Your task to perform on an android device: turn smart compose on in the gmail app Image 0: 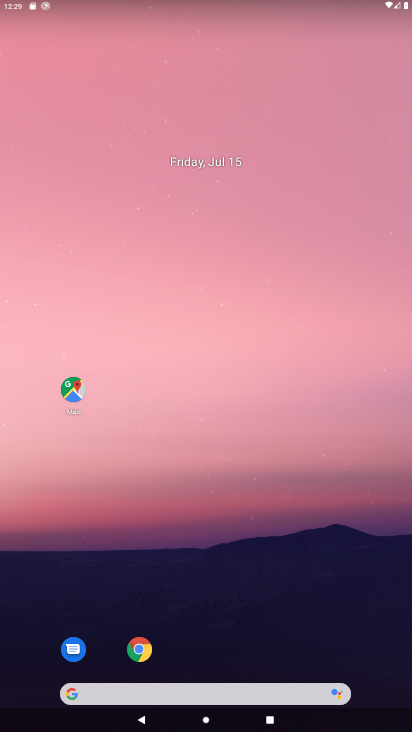
Step 0: drag from (175, 589) to (148, 164)
Your task to perform on an android device: turn smart compose on in the gmail app Image 1: 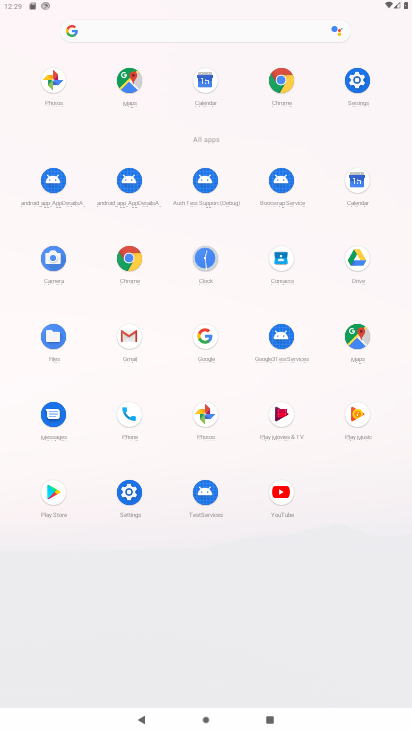
Step 1: click (132, 344)
Your task to perform on an android device: turn smart compose on in the gmail app Image 2: 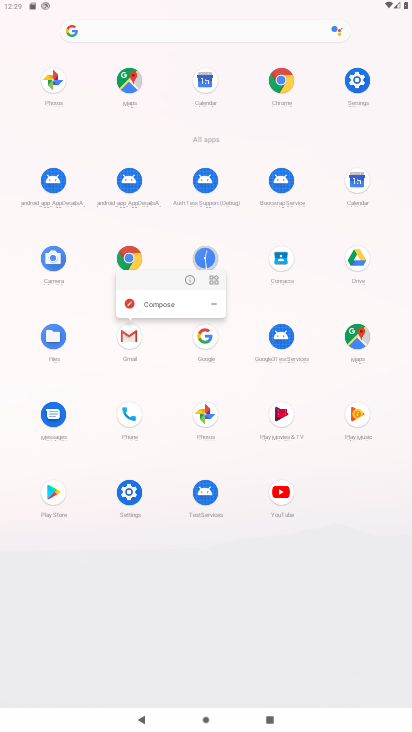
Step 2: click (131, 342)
Your task to perform on an android device: turn smart compose on in the gmail app Image 3: 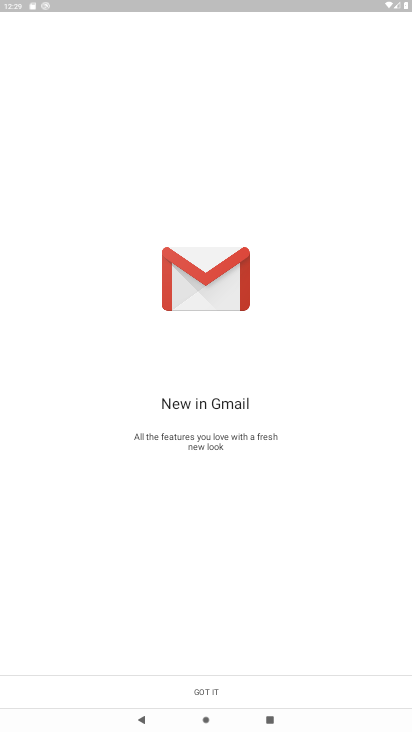
Step 3: click (203, 692)
Your task to perform on an android device: turn smart compose on in the gmail app Image 4: 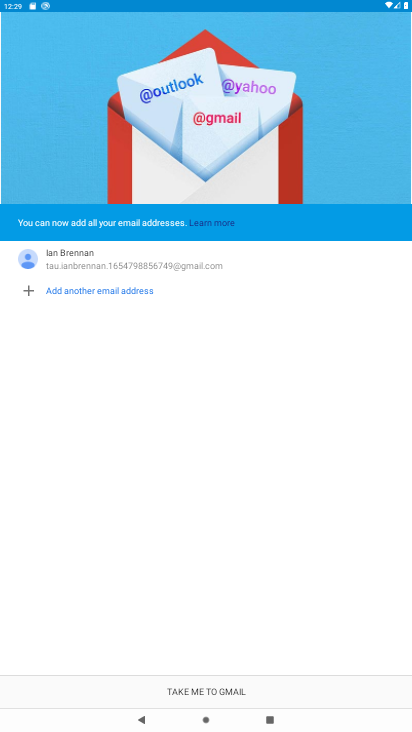
Step 4: click (221, 703)
Your task to perform on an android device: turn smart compose on in the gmail app Image 5: 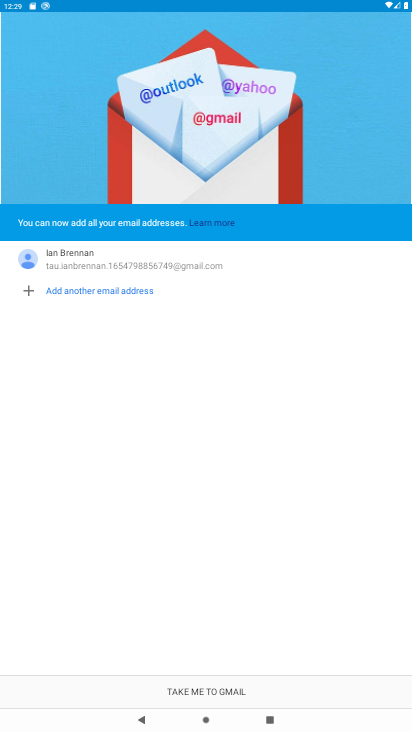
Step 5: click (225, 687)
Your task to perform on an android device: turn smart compose on in the gmail app Image 6: 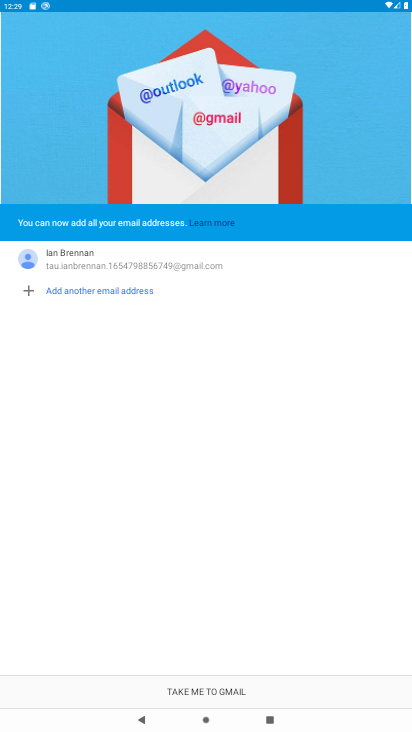
Step 6: click (225, 687)
Your task to perform on an android device: turn smart compose on in the gmail app Image 7: 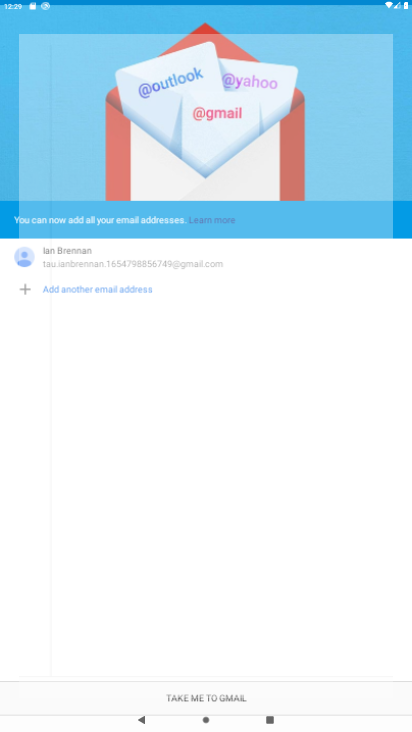
Step 7: click (225, 687)
Your task to perform on an android device: turn smart compose on in the gmail app Image 8: 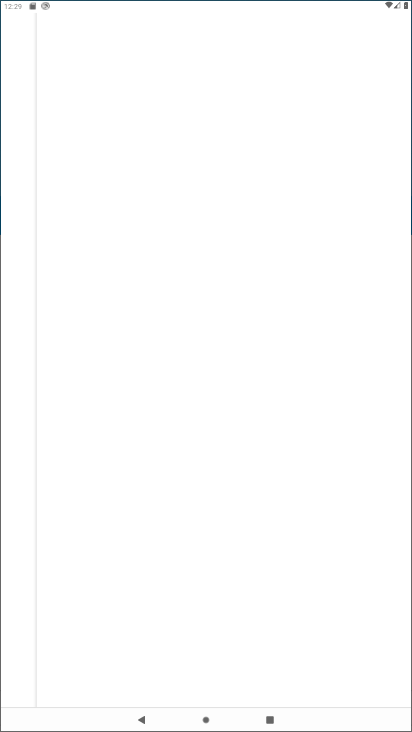
Step 8: click (225, 687)
Your task to perform on an android device: turn smart compose on in the gmail app Image 9: 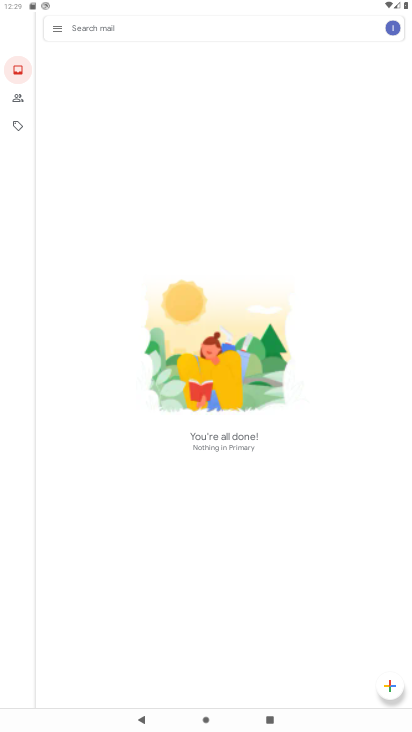
Step 9: click (50, 31)
Your task to perform on an android device: turn smart compose on in the gmail app Image 10: 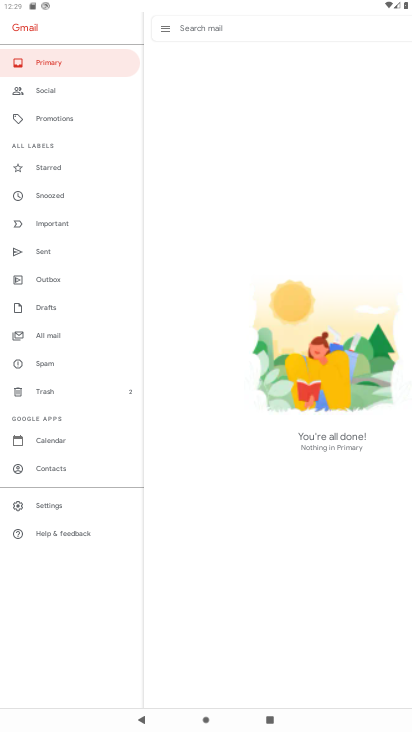
Step 10: click (45, 498)
Your task to perform on an android device: turn smart compose on in the gmail app Image 11: 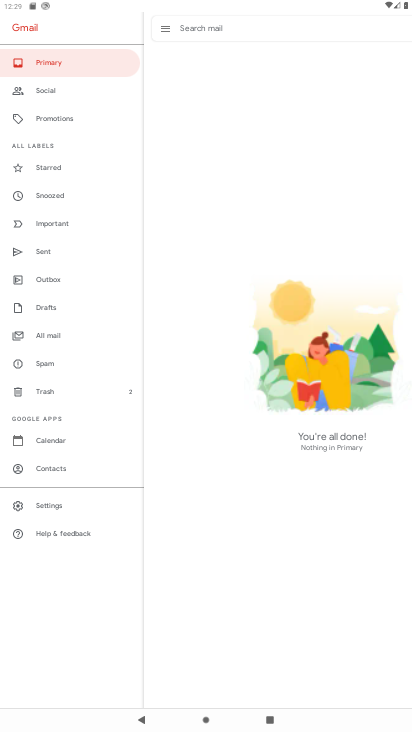
Step 11: click (47, 498)
Your task to perform on an android device: turn smart compose on in the gmail app Image 12: 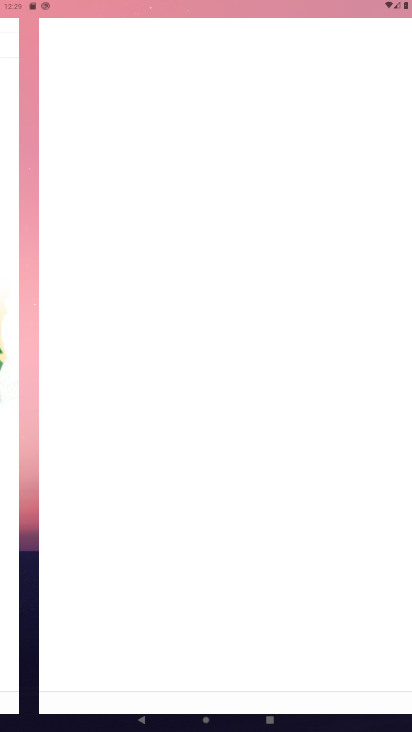
Step 12: click (48, 499)
Your task to perform on an android device: turn smart compose on in the gmail app Image 13: 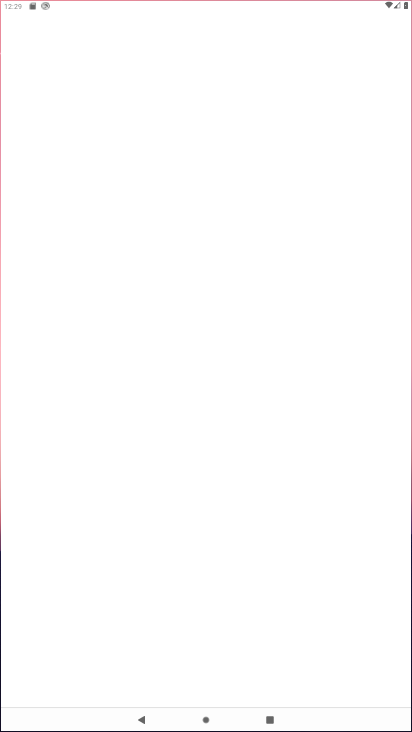
Step 13: click (48, 499)
Your task to perform on an android device: turn smart compose on in the gmail app Image 14: 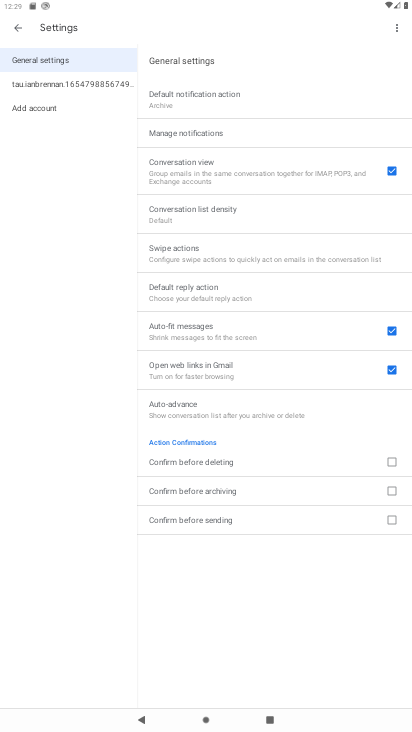
Step 14: click (43, 88)
Your task to perform on an android device: turn smart compose on in the gmail app Image 15: 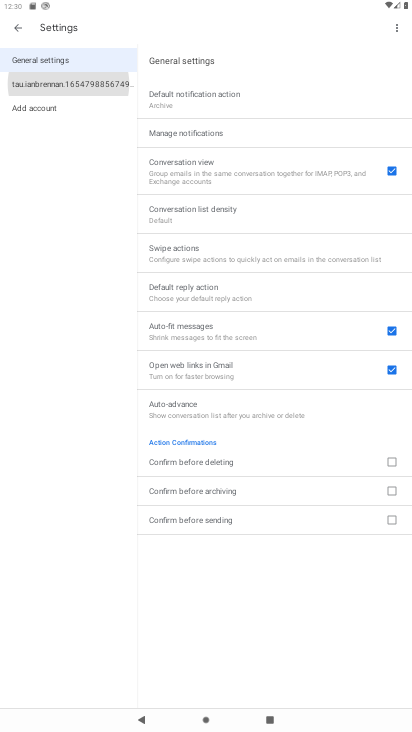
Step 15: click (48, 87)
Your task to perform on an android device: turn smart compose on in the gmail app Image 16: 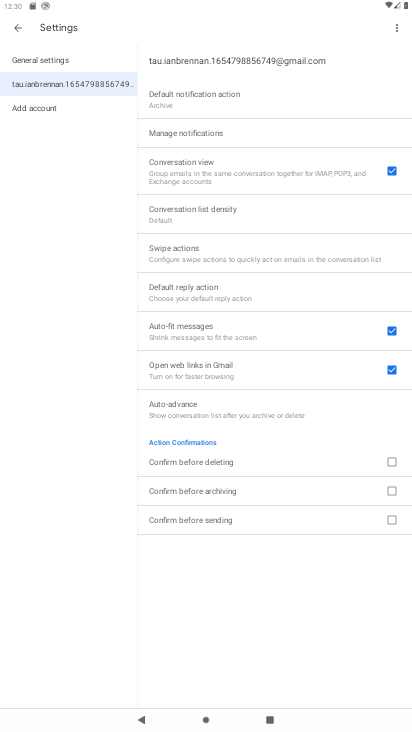
Step 16: click (48, 87)
Your task to perform on an android device: turn smart compose on in the gmail app Image 17: 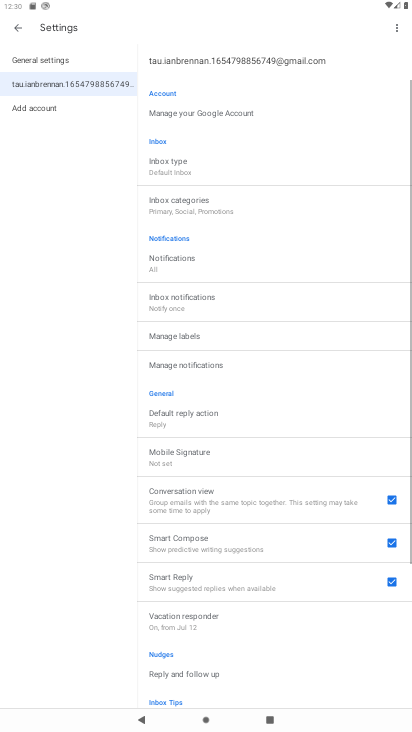
Step 17: click (48, 87)
Your task to perform on an android device: turn smart compose on in the gmail app Image 18: 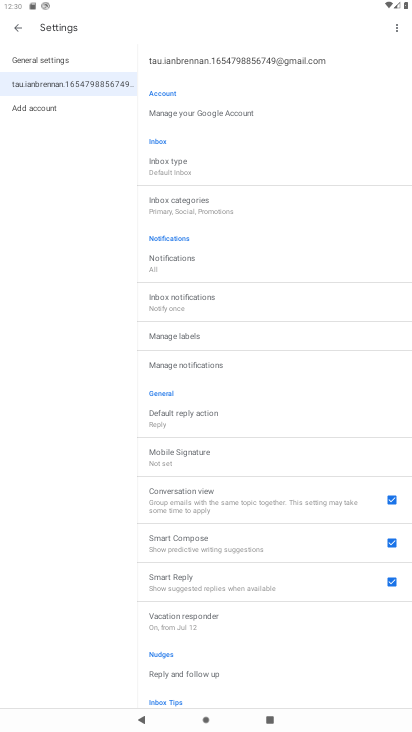
Step 18: click (186, 540)
Your task to perform on an android device: turn smart compose on in the gmail app Image 19: 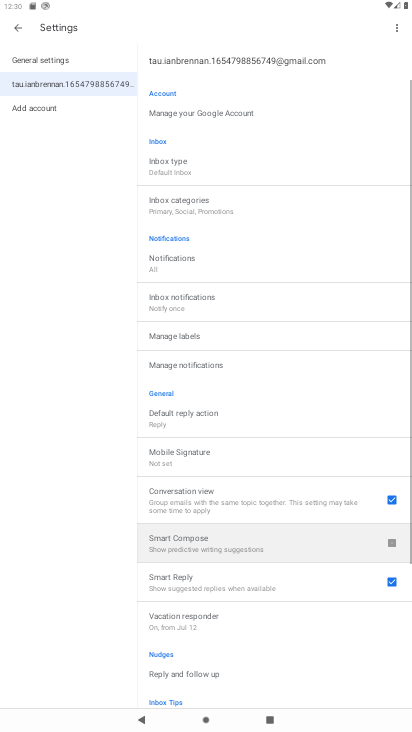
Step 19: click (397, 543)
Your task to perform on an android device: turn smart compose on in the gmail app Image 20: 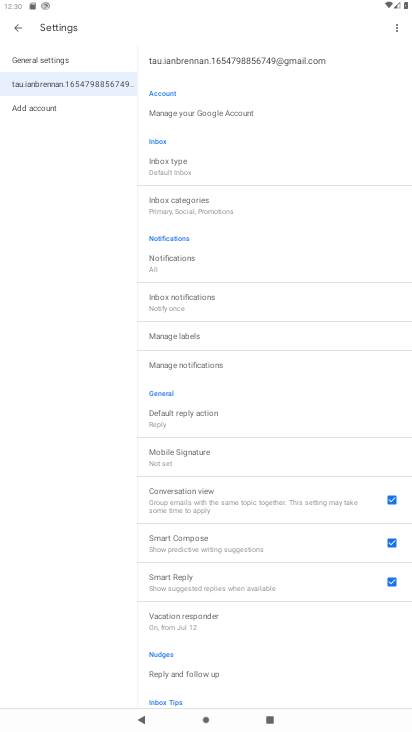
Step 20: click (395, 539)
Your task to perform on an android device: turn smart compose on in the gmail app Image 21: 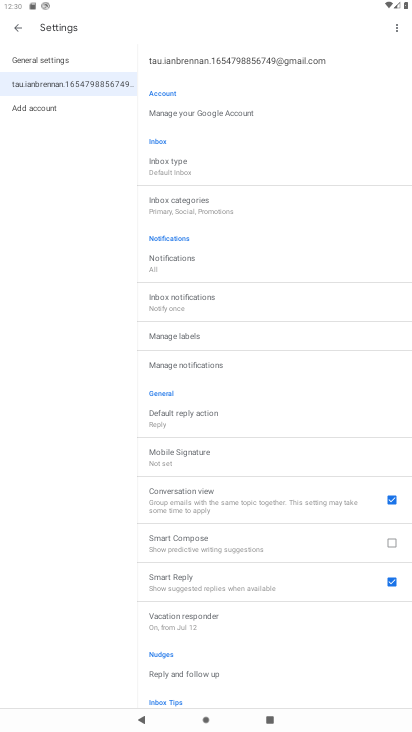
Step 21: task complete